Your task to perform on an android device: Go to sound settings Image 0: 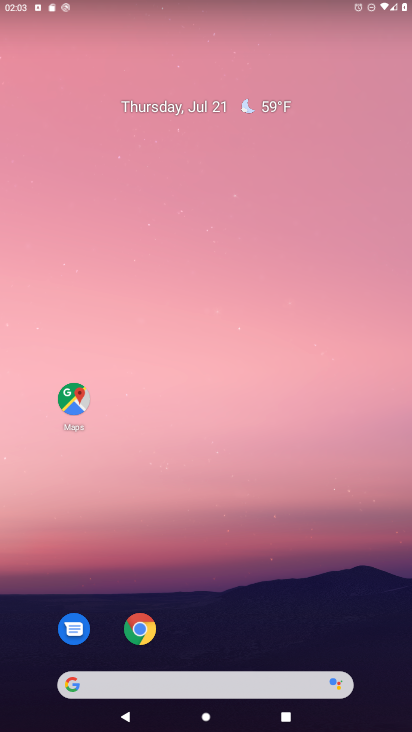
Step 0: drag from (371, 667) to (333, 77)
Your task to perform on an android device: Go to sound settings Image 1: 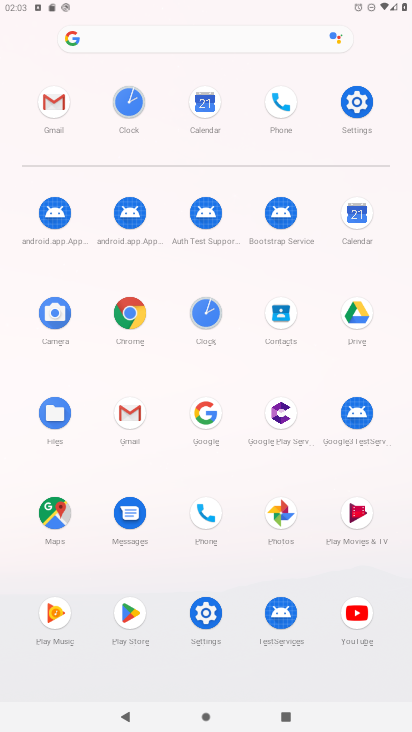
Step 1: click (205, 613)
Your task to perform on an android device: Go to sound settings Image 2: 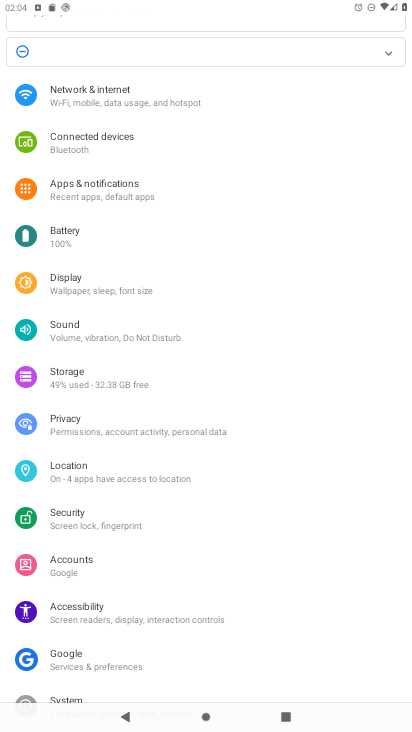
Step 2: click (58, 324)
Your task to perform on an android device: Go to sound settings Image 3: 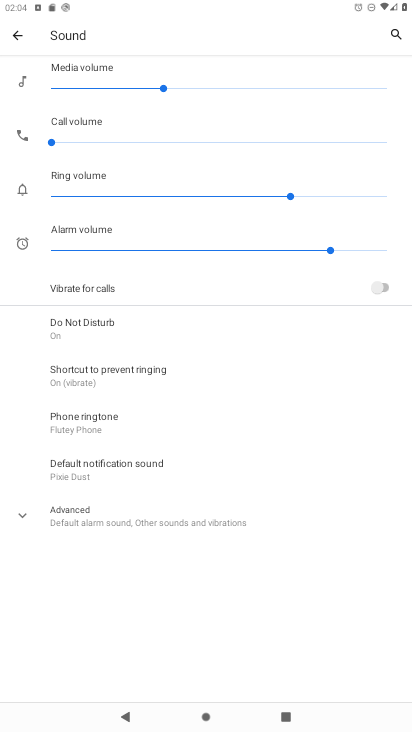
Step 3: click (18, 512)
Your task to perform on an android device: Go to sound settings Image 4: 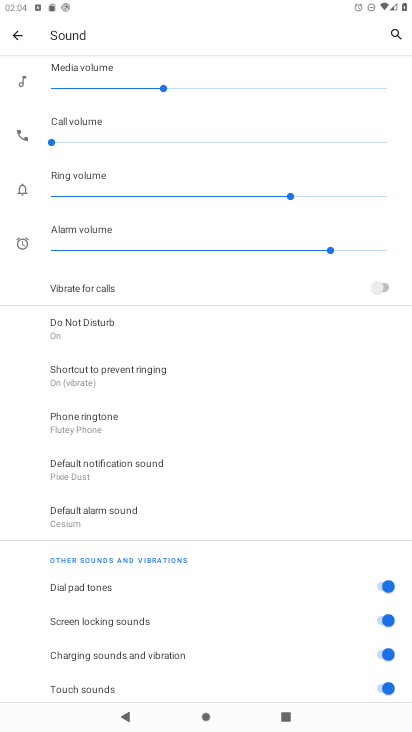
Step 4: task complete